Your task to perform on an android device: Go to accessibility settings Image 0: 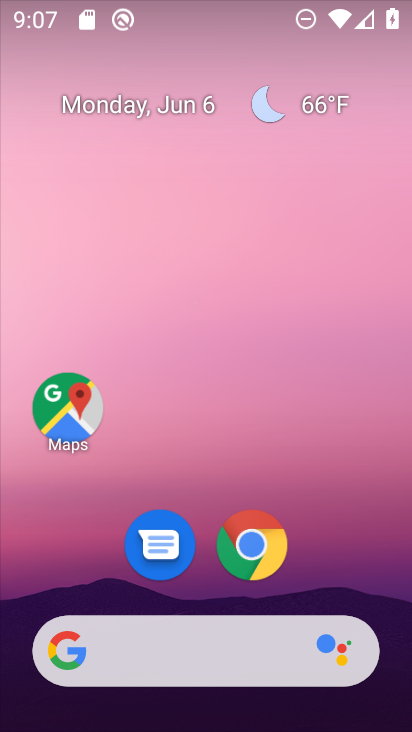
Step 0: drag from (204, 576) to (272, 260)
Your task to perform on an android device: Go to accessibility settings Image 1: 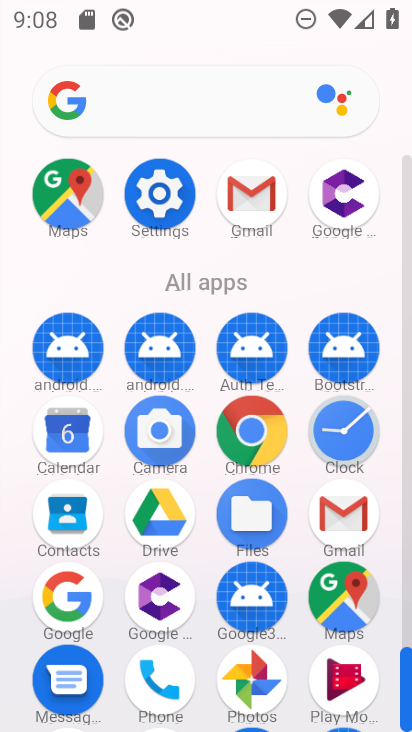
Step 1: click (154, 196)
Your task to perform on an android device: Go to accessibility settings Image 2: 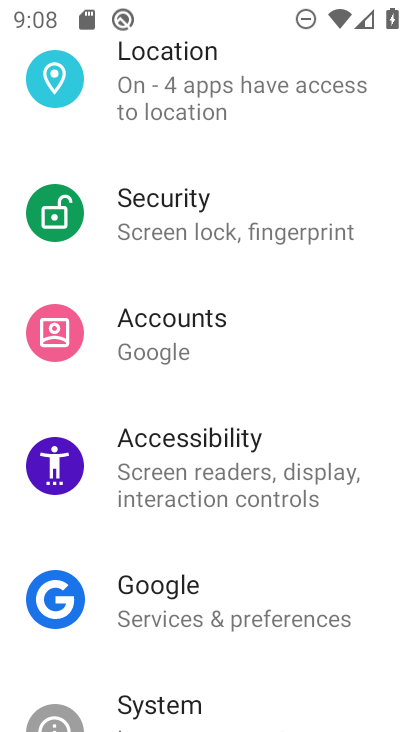
Step 2: click (222, 454)
Your task to perform on an android device: Go to accessibility settings Image 3: 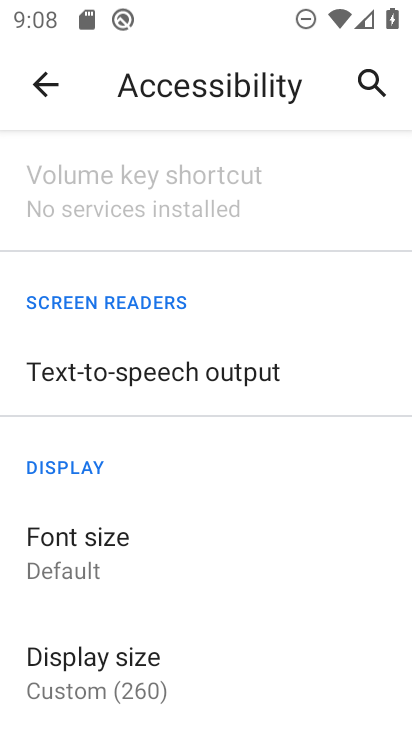
Step 3: task complete